Your task to perform on an android device: see tabs open on other devices in the chrome app Image 0: 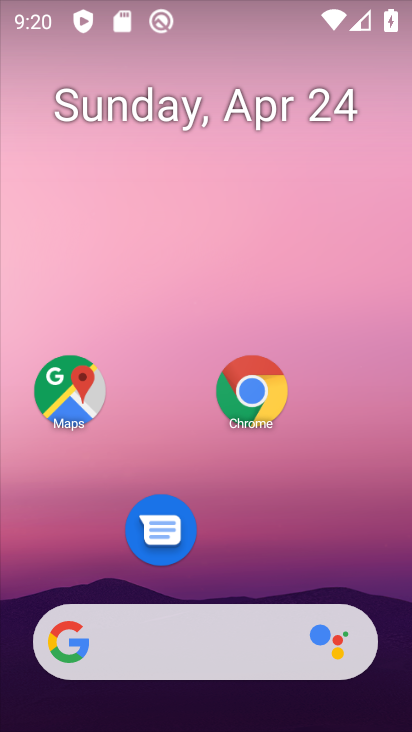
Step 0: click (249, 393)
Your task to perform on an android device: see tabs open on other devices in the chrome app Image 1: 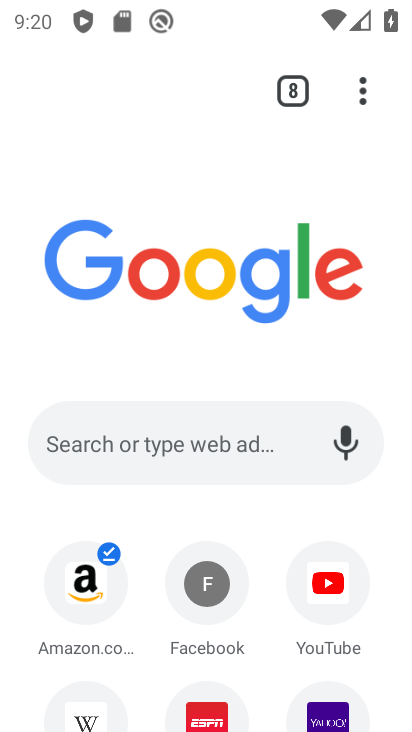
Step 1: click (368, 115)
Your task to perform on an android device: see tabs open on other devices in the chrome app Image 2: 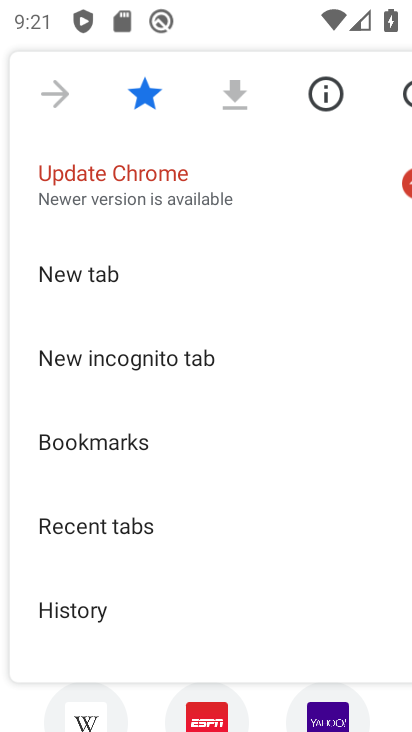
Step 2: drag from (142, 492) to (172, 164)
Your task to perform on an android device: see tabs open on other devices in the chrome app Image 3: 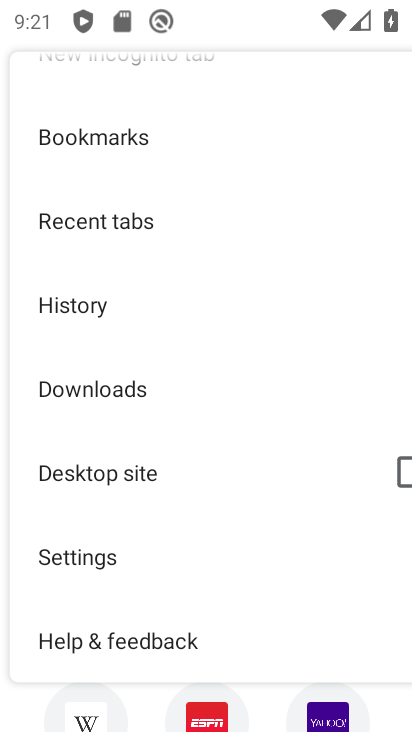
Step 3: click (164, 243)
Your task to perform on an android device: see tabs open on other devices in the chrome app Image 4: 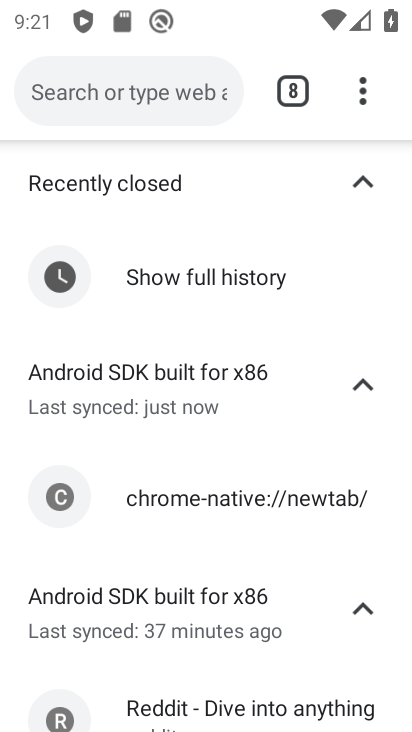
Step 4: task complete